Your task to perform on an android device: turn off notifications in google photos Image 0: 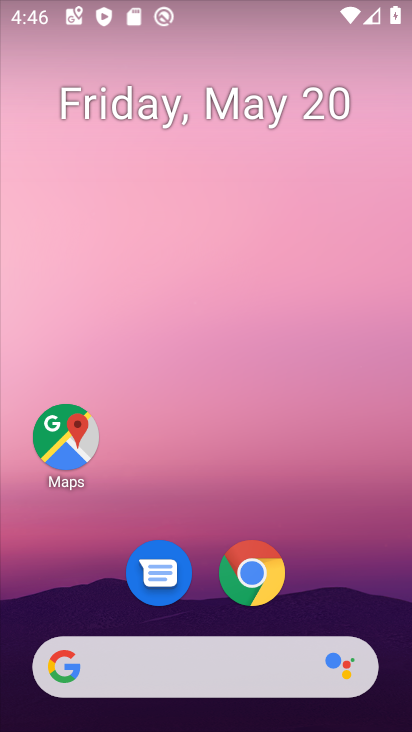
Step 0: drag from (389, 622) to (338, 104)
Your task to perform on an android device: turn off notifications in google photos Image 1: 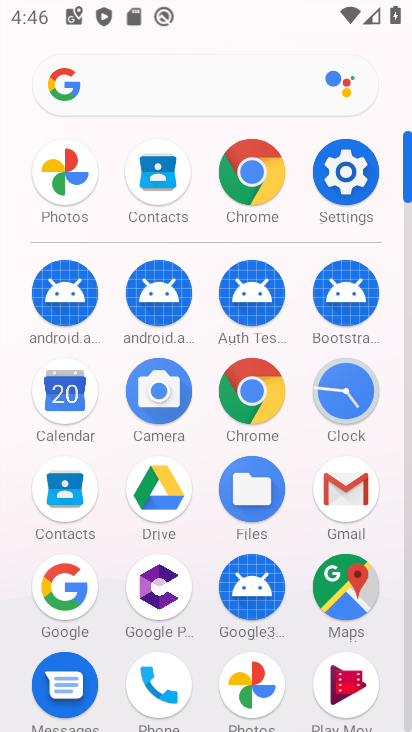
Step 1: click (409, 702)
Your task to perform on an android device: turn off notifications in google photos Image 2: 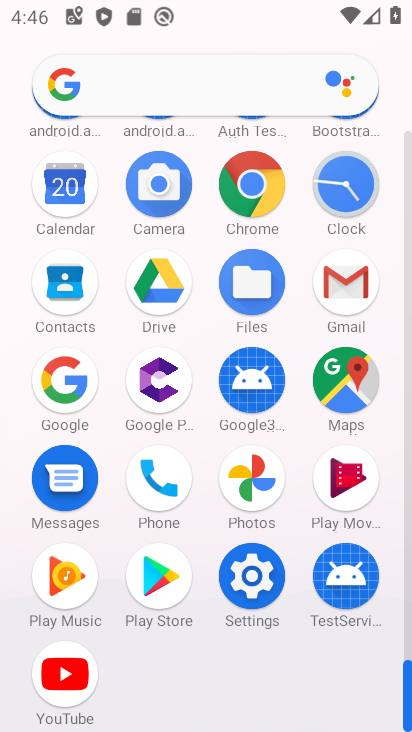
Step 2: click (253, 477)
Your task to perform on an android device: turn off notifications in google photos Image 3: 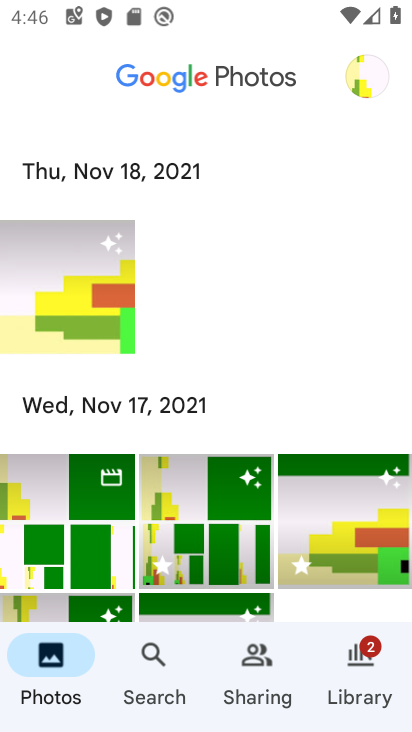
Step 3: click (372, 78)
Your task to perform on an android device: turn off notifications in google photos Image 4: 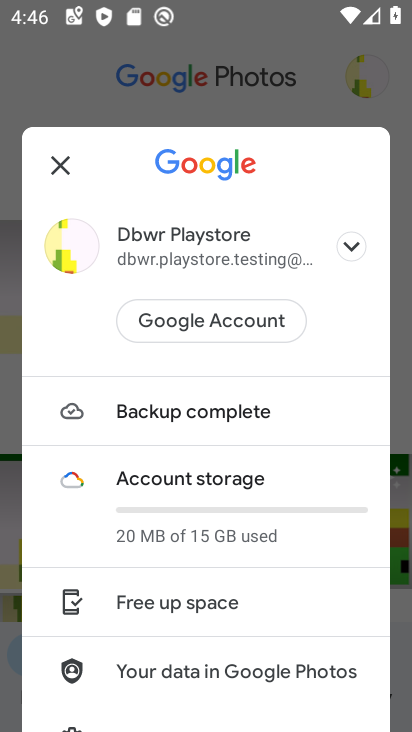
Step 4: drag from (295, 629) to (298, 282)
Your task to perform on an android device: turn off notifications in google photos Image 5: 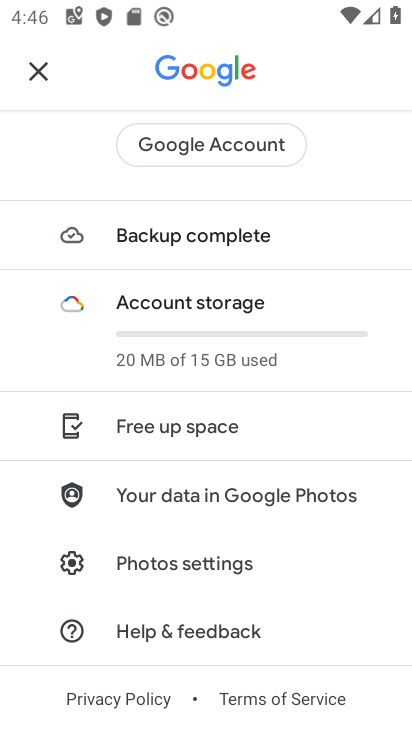
Step 5: click (167, 557)
Your task to perform on an android device: turn off notifications in google photos Image 6: 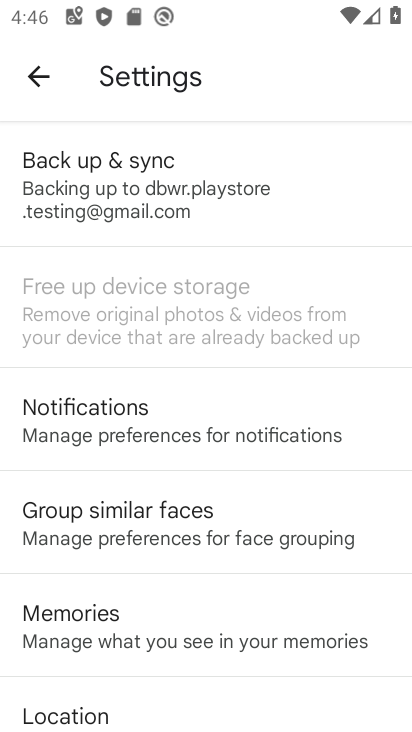
Step 6: click (141, 428)
Your task to perform on an android device: turn off notifications in google photos Image 7: 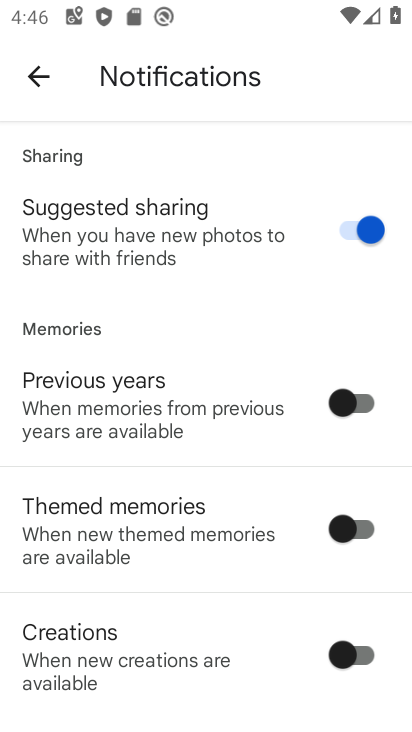
Step 7: drag from (264, 681) to (285, 177)
Your task to perform on an android device: turn off notifications in google photos Image 8: 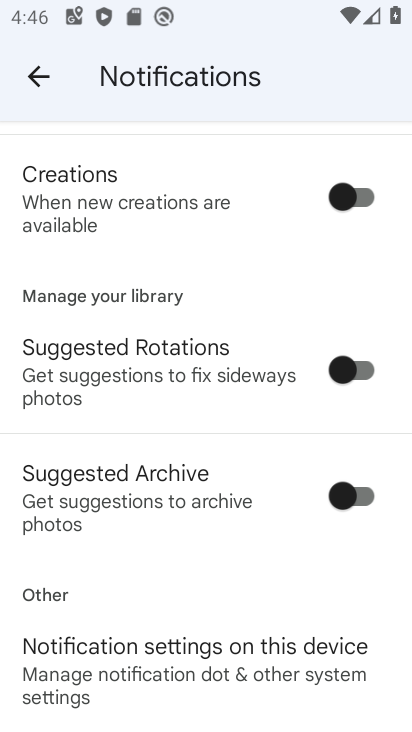
Step 8: click (151, 667)
Your task to perform on an android device: turn off notifications in google photos Image 9: 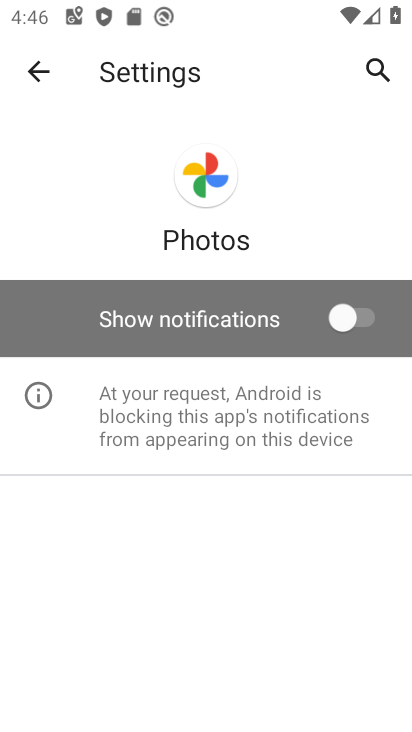
Step 9: task complete